Your task to perform on an android device: Show me popular videos on Youtube Image 0: 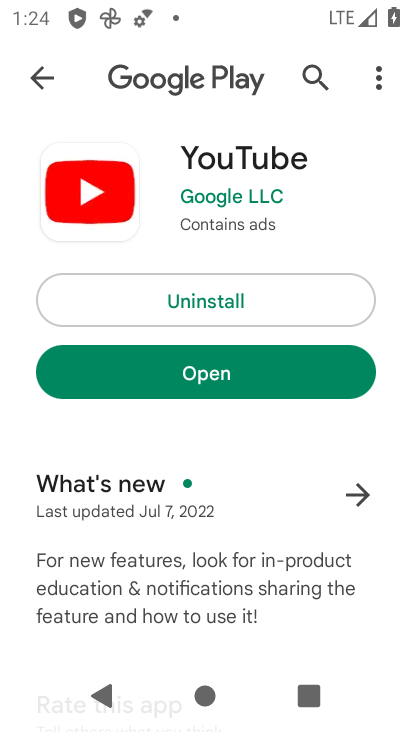
Step 0: press home button
Your task to perform on an android device: Show me popular videos on Youtube Image 1: 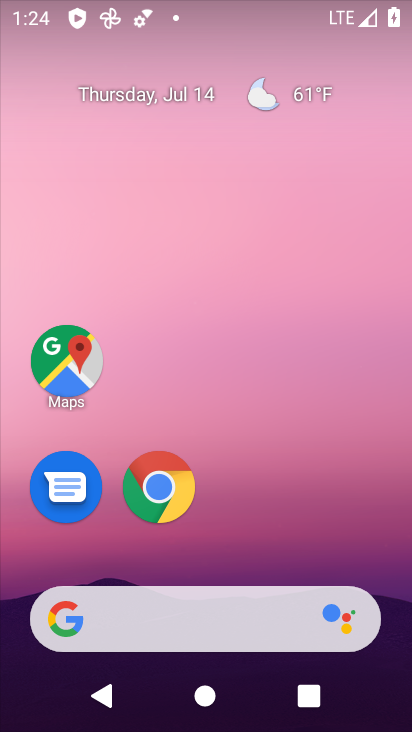
Step 1: drag from (368, 522) to (383, 160)
Your task to perform on an android device: Show me popular videos on Youtube Image 2: 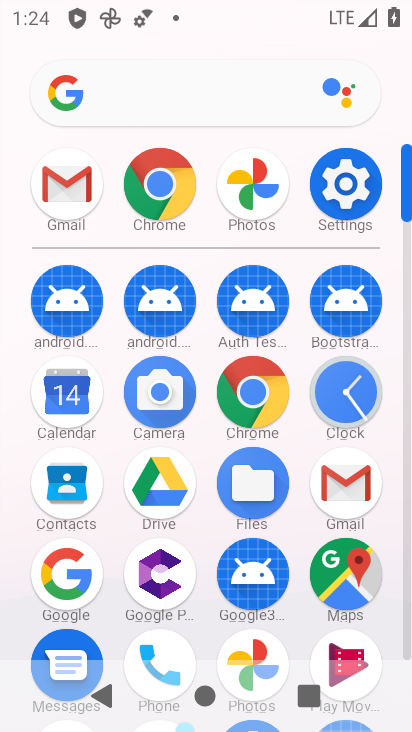
Step 2: drag from (384, 622) to (402, 287)
Your task to perform on an android device: Show me popular videos on Youtube Image 3: 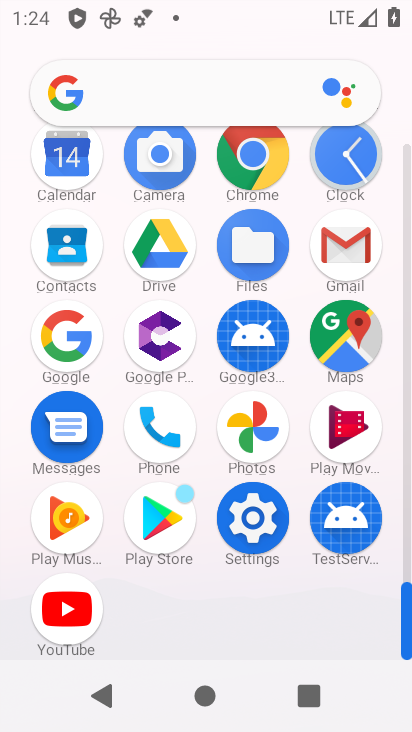
Step 3: click (74, 610)
Your task to perform on an android device: Show me popular videos on Youtube Image 4: 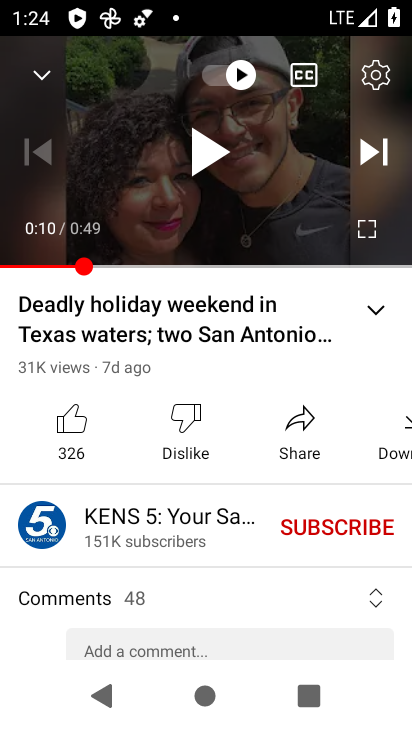
Step 4: press back button
Your task to perform on an android device: Show me popular videos on Youtube Image 5: 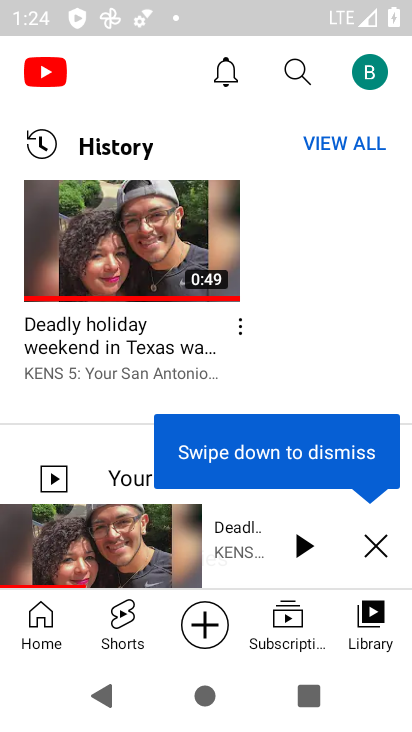
Step 5: click (39, 623)
Your task to perform on an android device: Show me popular videos on Youtube Image 6: 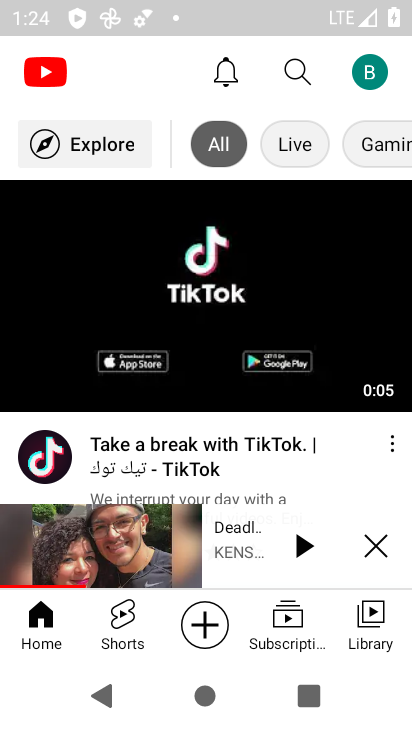
Step 6: click (368, 538)
Your task to perform on an android device: Show me popular videos on Youtube Image 7: 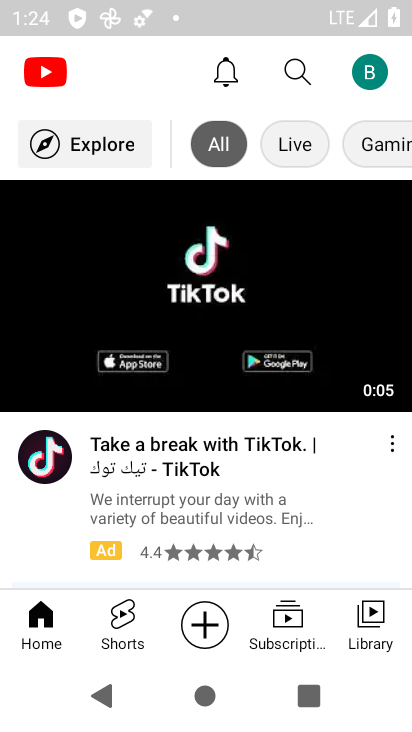
Step 7: task complete